Your task to perform on an android device: Open settings on Google Maps Image 0: 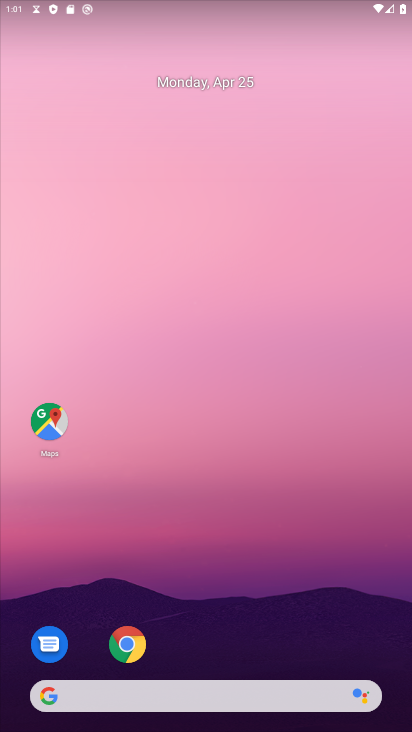
Step 0: click (44, 424)
Your task to perform on an android device: Open settings on Google Maps Image 1: 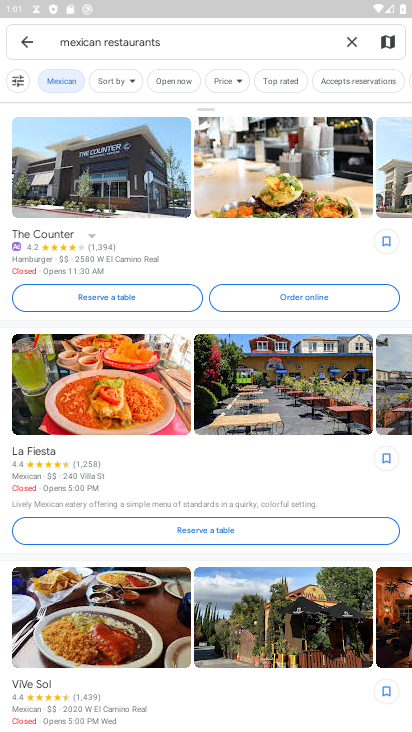
Step 1: click (24, 46)
Your task to perform on an android device: Open settings on Google Maps Image 2: 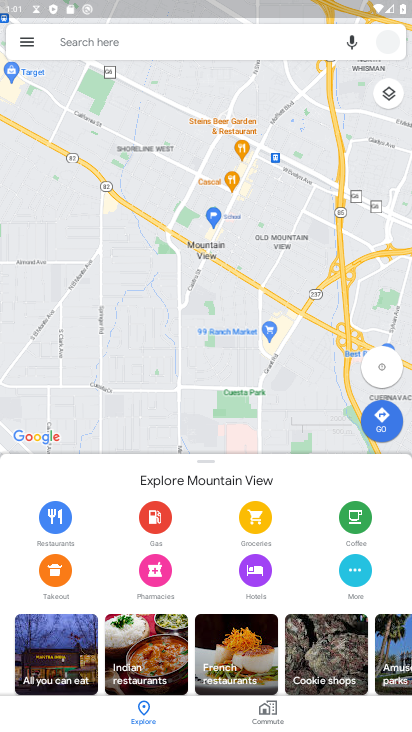
Step 2: click (31, 39)
Your task to perform on an android device: Open settings on Google Maps Image 3: 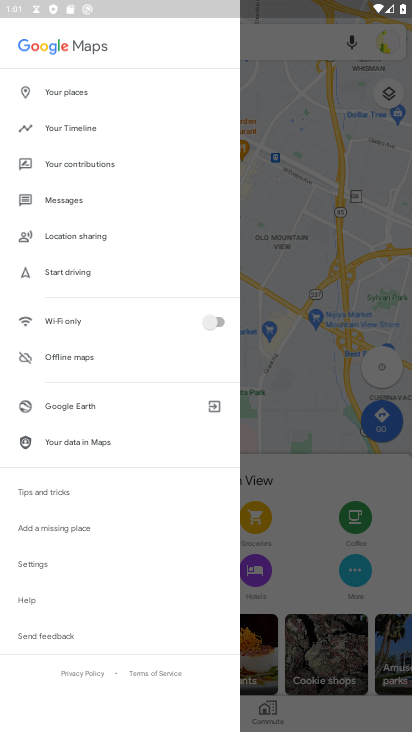
Step 3: click (24, 567)
Your task to perform on an android device: Open settings on Google Maps Image 4: 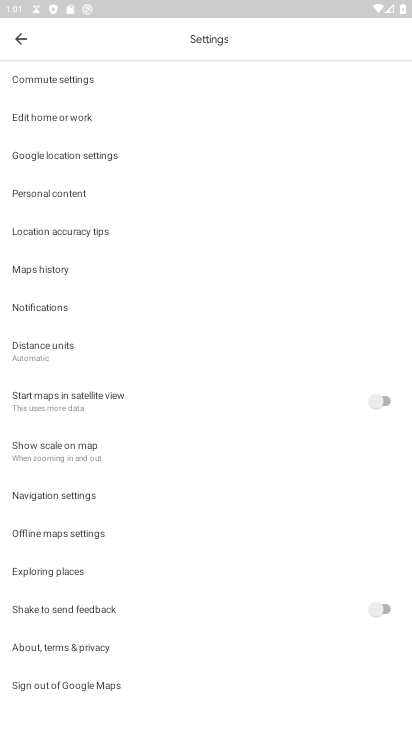
Step 4: task complete